Your task to perform on an android device: Go to eBay Image 0: 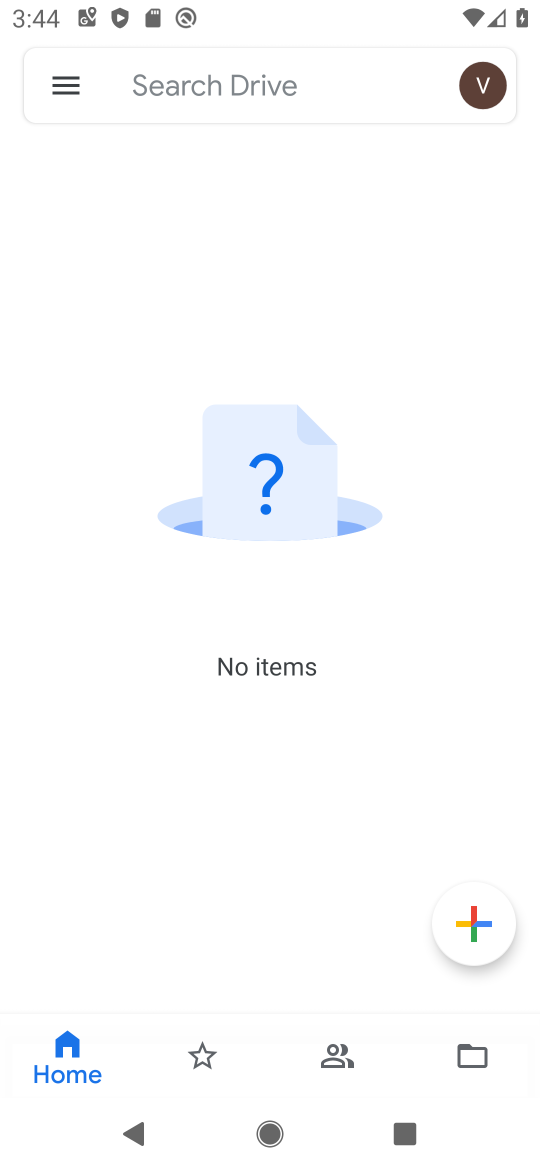
Step 0: press home button
Your task to perform on an android device: Go to eBay Image 1: 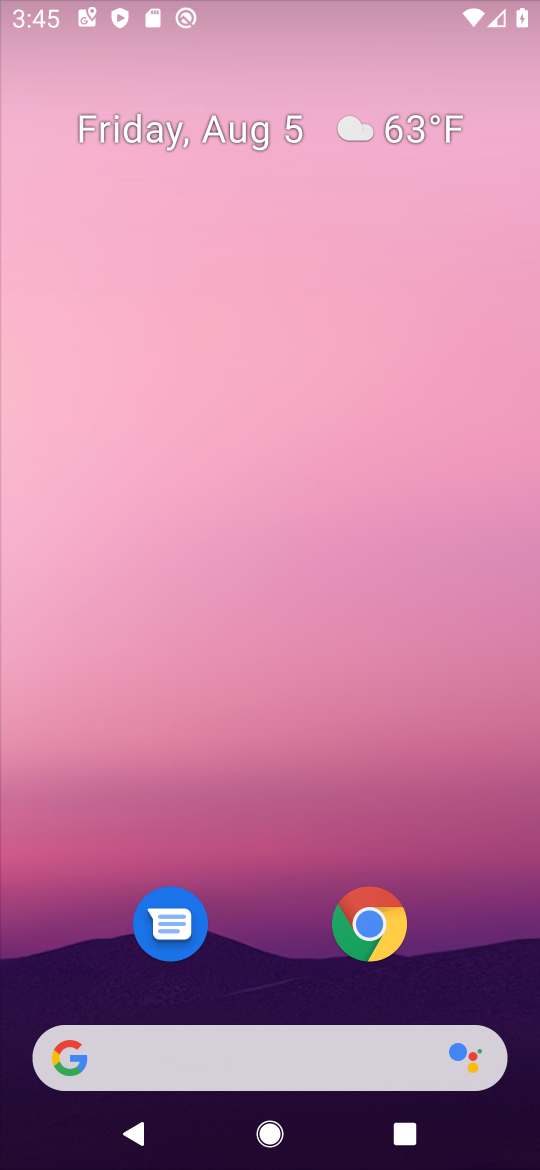
Step 1: drag from (266, 988) to (0, 128)
Your task to perform on an android device: Go to eBay Image 2: 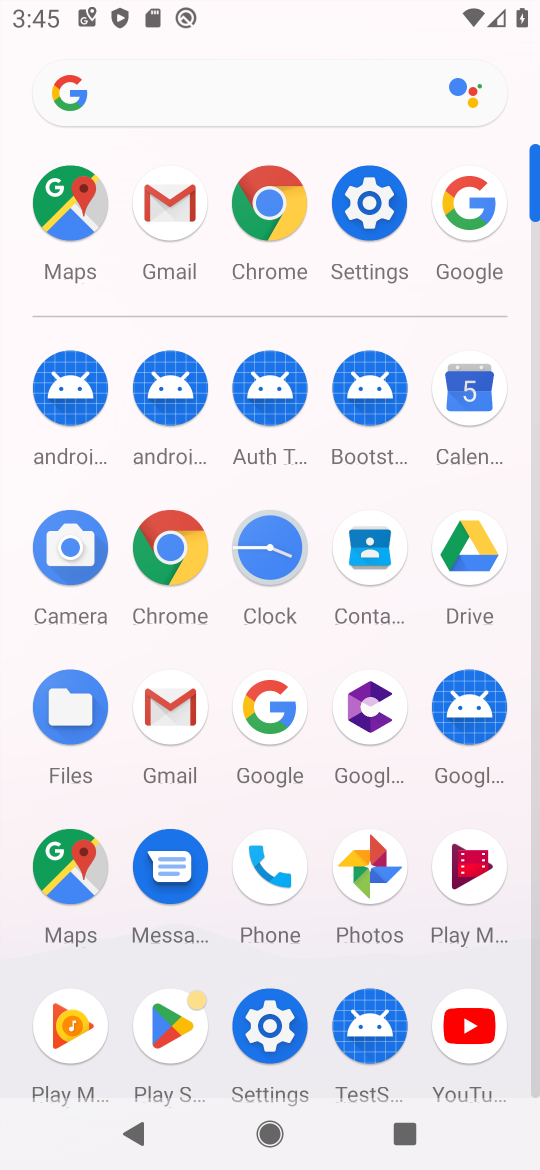
Step 2: click (160, 581)
Your task to perform on an android device: Go to eBay Image 3: 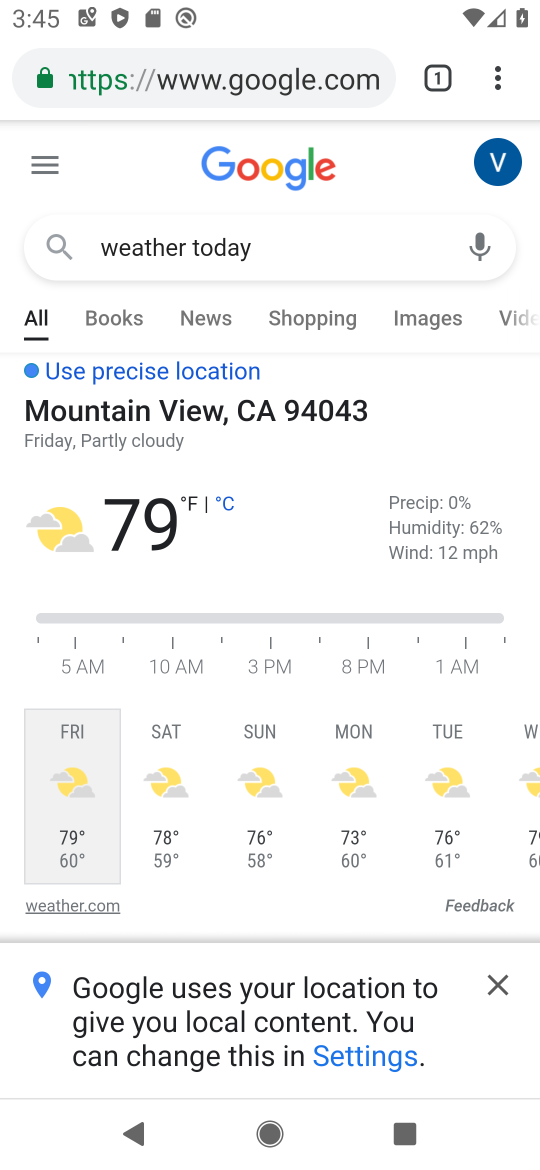
Step 3: click (436, 78)
Your task to perform on an android device: Go to eBay Image 4: 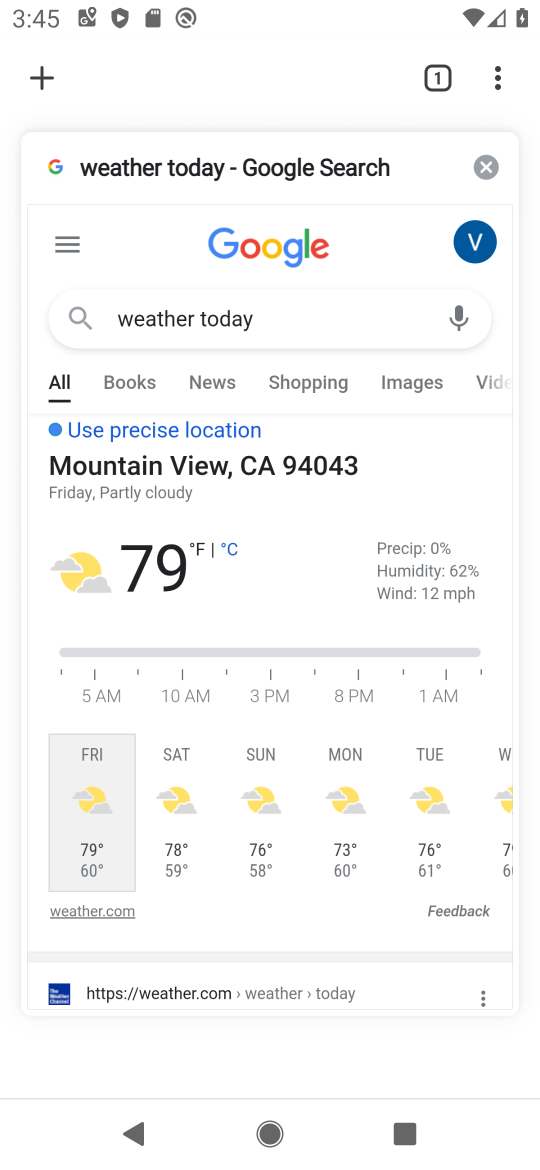
Step 4: click (56, 79)
Your task to perform on an android device: Go to eBay Image 5: 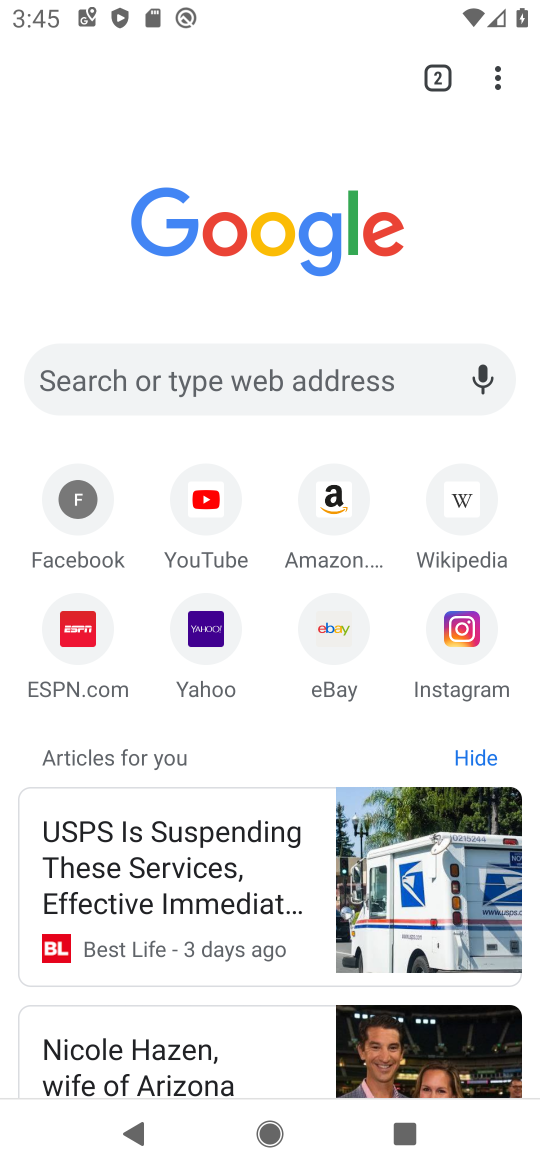
Step 5: click (317, 628)
Your task to perform on an android device: Go to eBay Image 6: 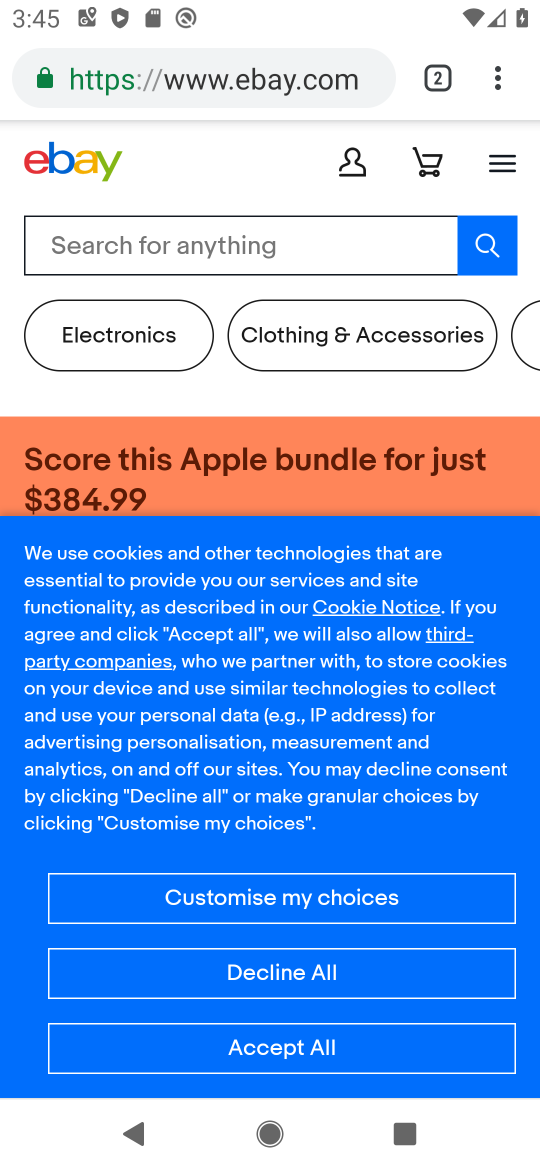
Step 6: task complete